Your task to perform on an android device: find snoozed emails in the gmail app Image 0: 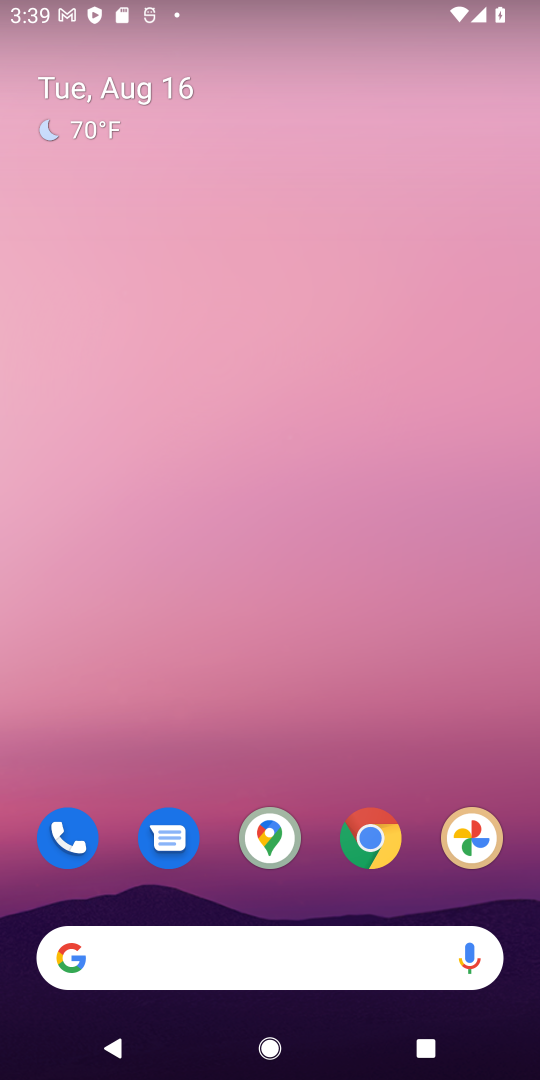
Step 0: drag from (279, 952) to (337, 177)
Your task to perform on an android device: find snoozed emails in the gmail app Image 1: 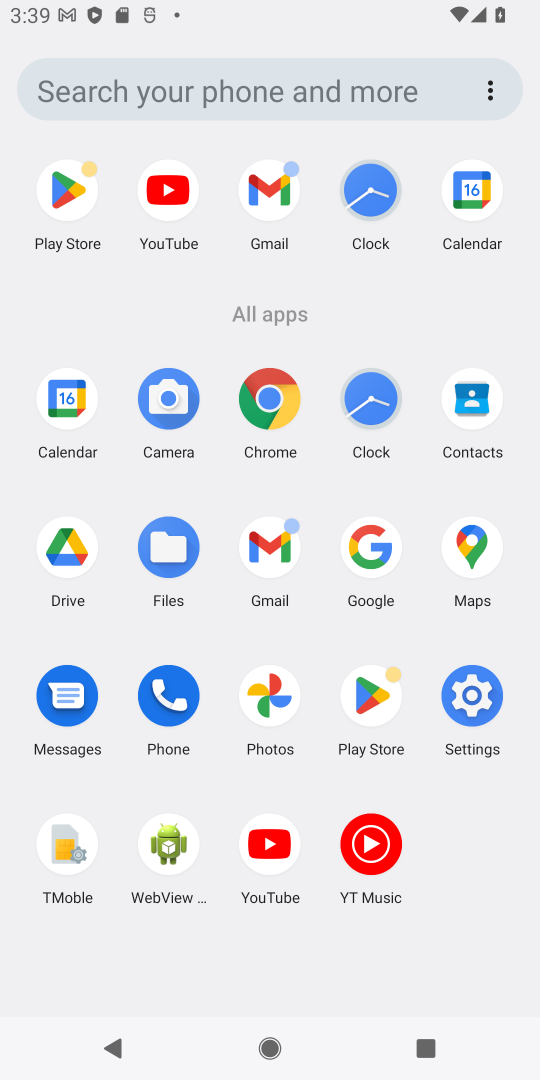
Step 1: click (264, 554)
Your task to perform on an android device: find snoozed emails in the gmail app Image 2: 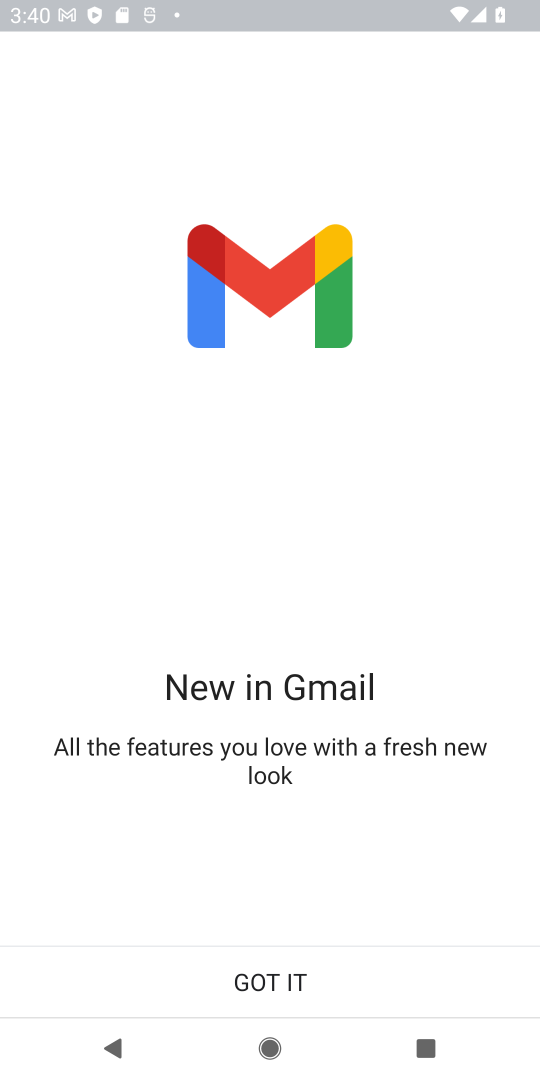
Step 2: click (253, 977)
Your task to perform on an android device: find snoozed emails in the gmail app Image 3: 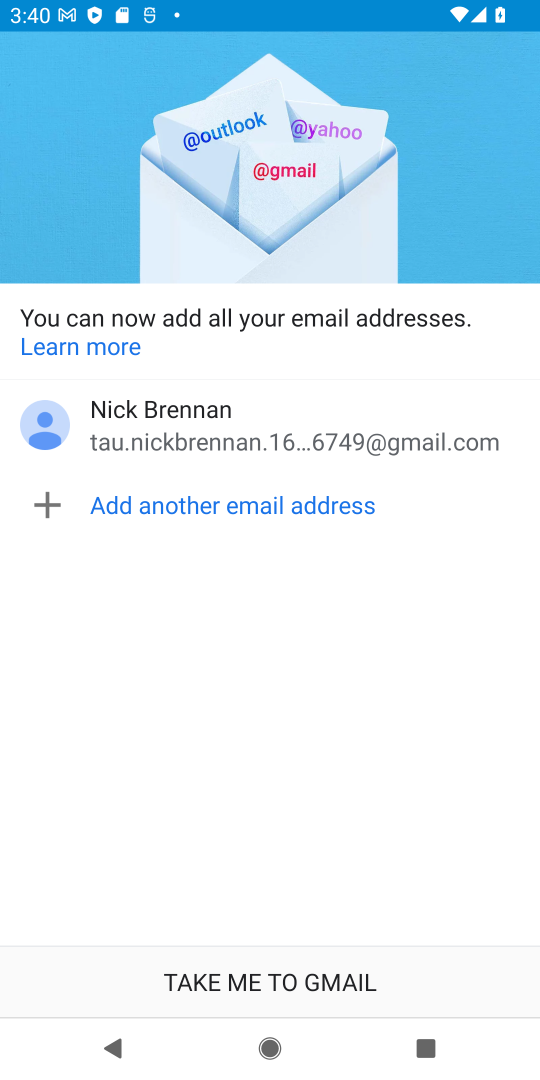
Step 3: click (260, 965)
Your task to perform on an android device: find snoozed emails in the gmail app Image 4: 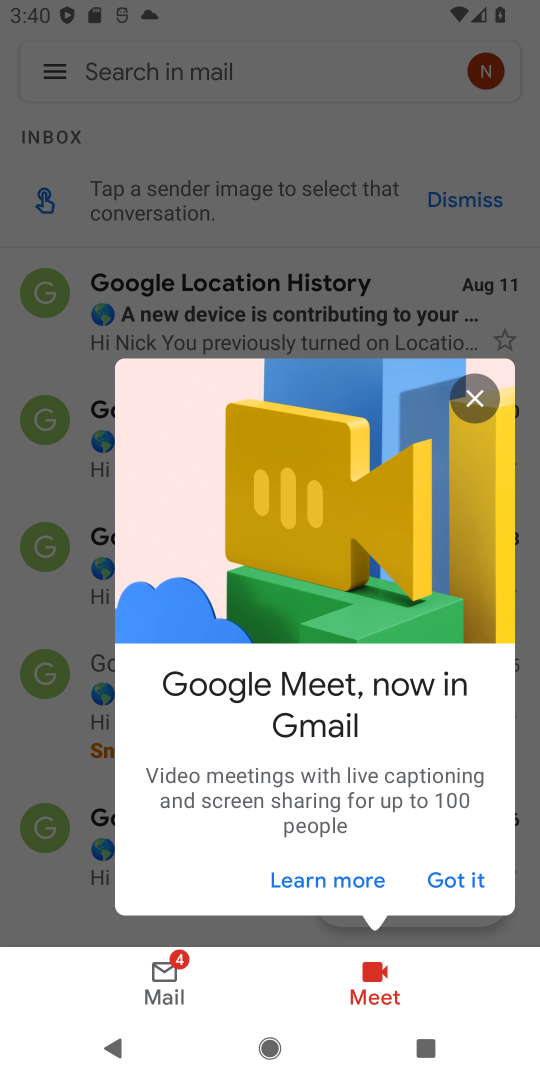
Step 4: click (479, 385)
Your task to perform on an android device: find snoozed emails in the gmail app Image 5: 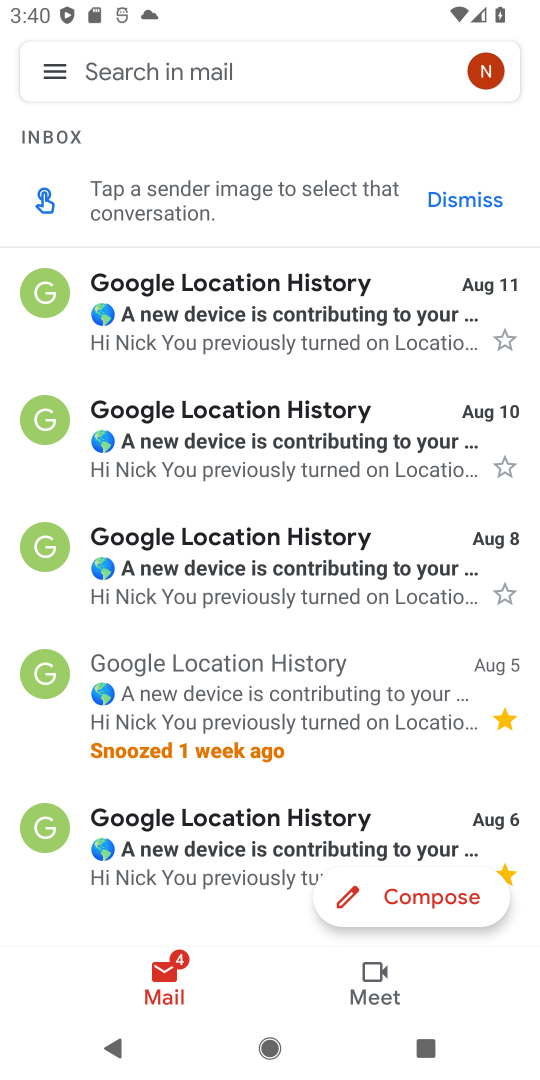
Step 5: click (51, 92)
Your task to perform on an android device: find snoozed emails in the gmail app Image 6: 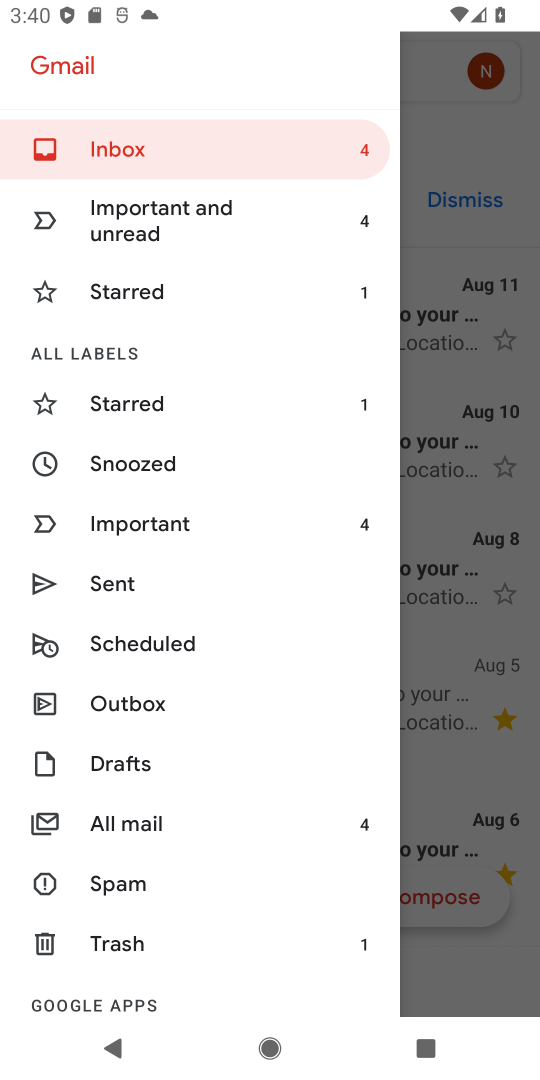
Step 6: click (153, 468)
Your task to perform on an android device: find snoozed emails in the gmail app Image 7: 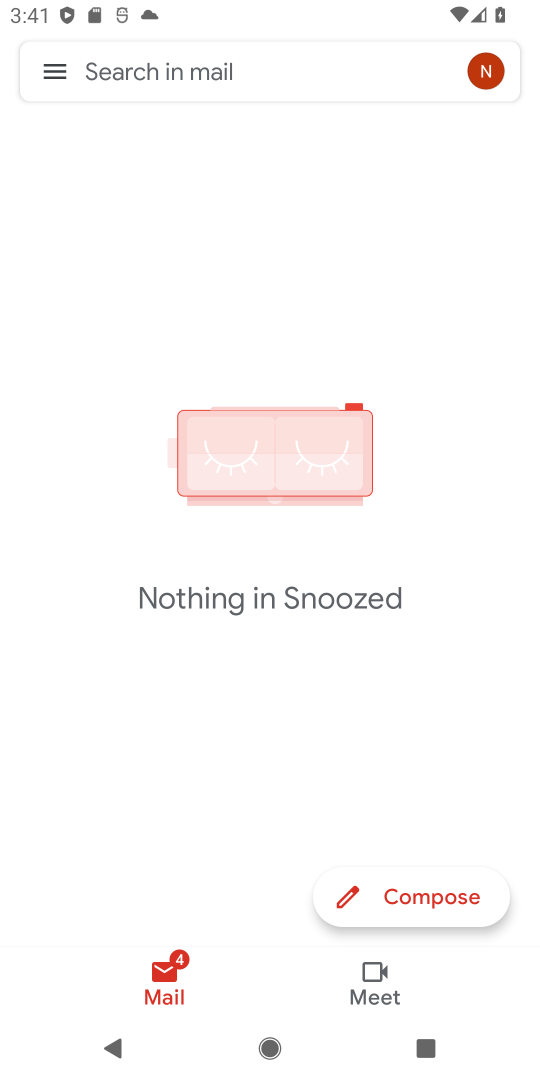
Step 7: task complete